Your task to perform on an android device: add a contact Image 0: 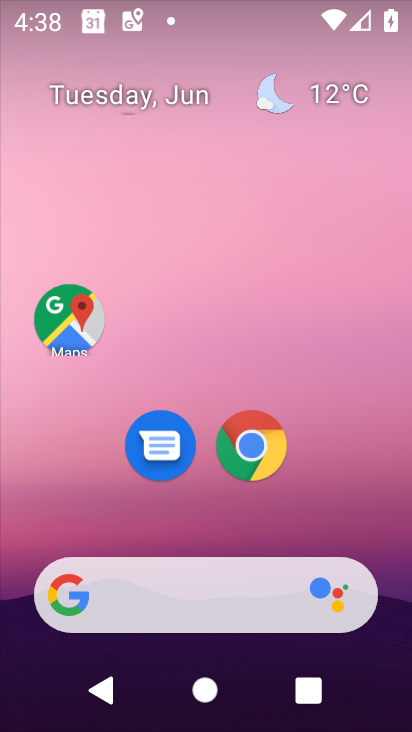
Step 0: drag from (338, 334) to (302, 3)
Your task to perform on an android device: add a contact Image 1: 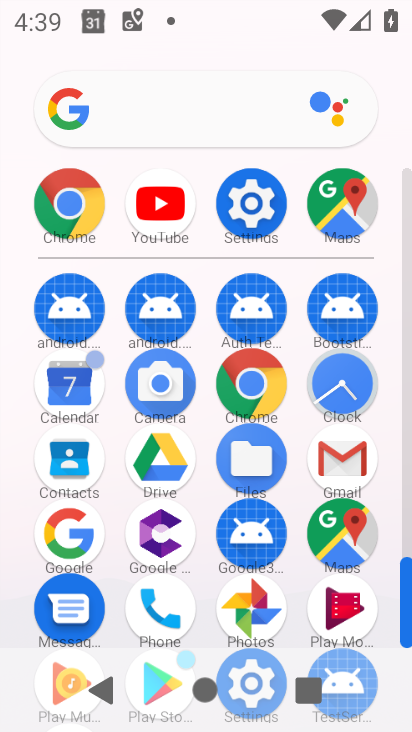
Step 1: click (179, 595)
Your task to perform on an android device: add a contact Image 2: 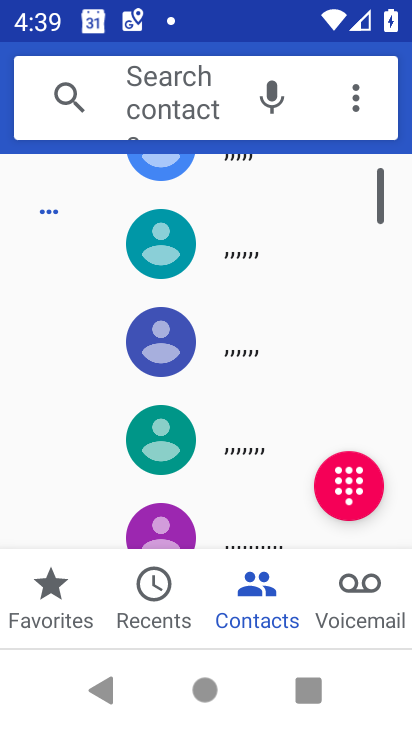
Step 2: task complete